Your task to perform on an android device: toggle javascript in the chrome app Image 0: 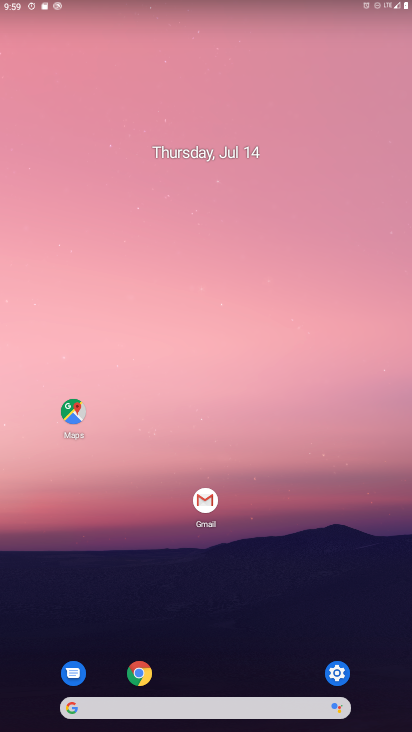
Step 0: click (153, 659)
Your task to perform on an android device: toggle javascript in the chrome app Image 1: 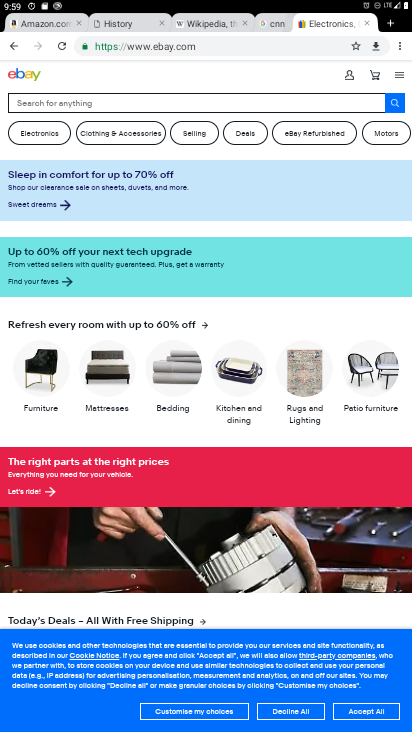
Step 1: click (399, 53)
Your task to perform on an android device: toggle javascript in the chrome app Image 2: 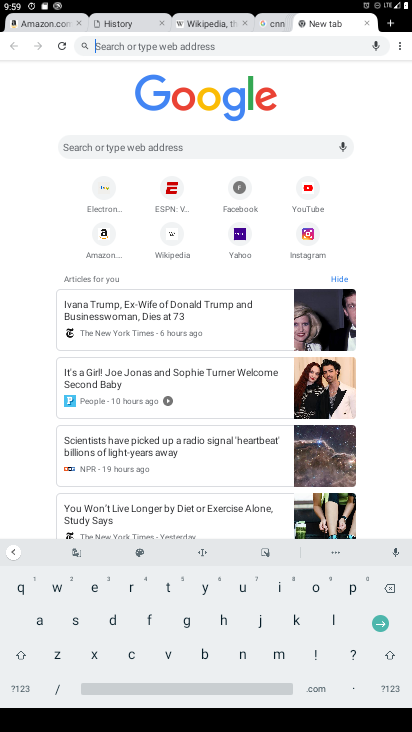
Step 2: click (394, 51)
Your task to perform on an android device: toggle javascript in the chrome app Image 3: 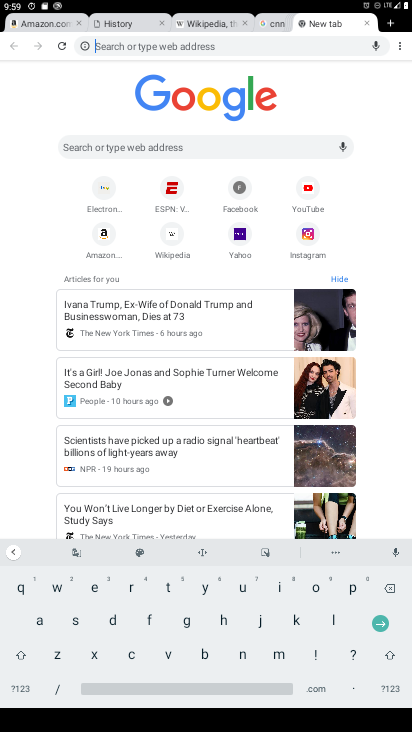
Step 3: click (395, 47)
Your task to perform on an android device: toggle javascript in the chrome app Image 4: 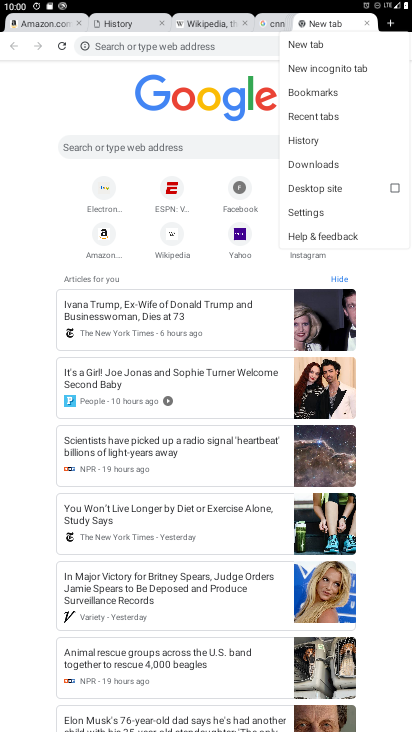
Step 4: click (305, 215)
Your task to perform on an android device: toggle javascript in the chrome app Image 5: 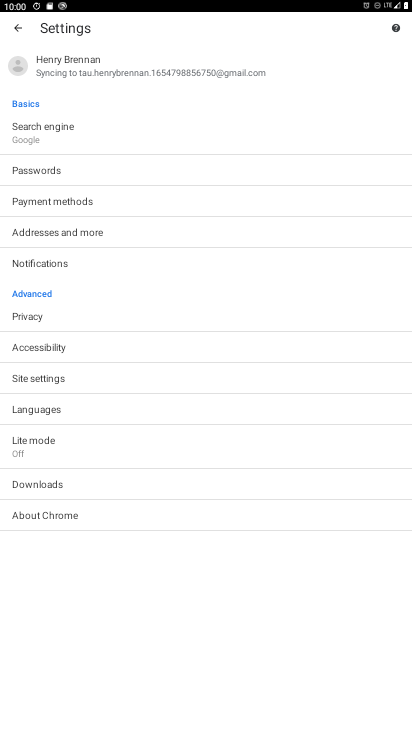
Step 5: click (44, 376)
Your task to perform on an android device: toggle javascript in the chrome app Image 6: 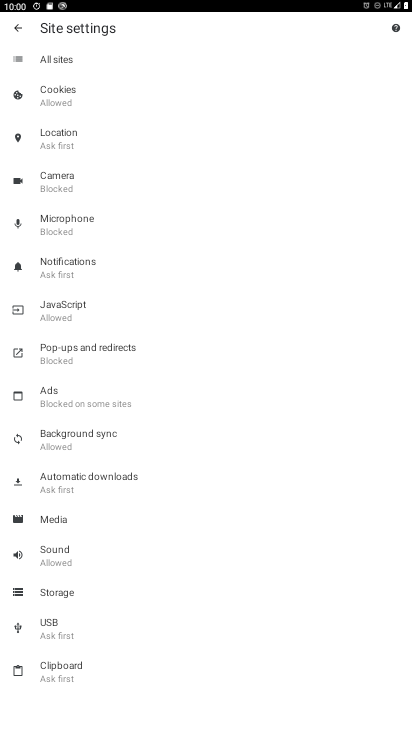
Step 6: click (77, 307)
Your task to perform on an android device: toggle javascript in the chrome app Image 7: 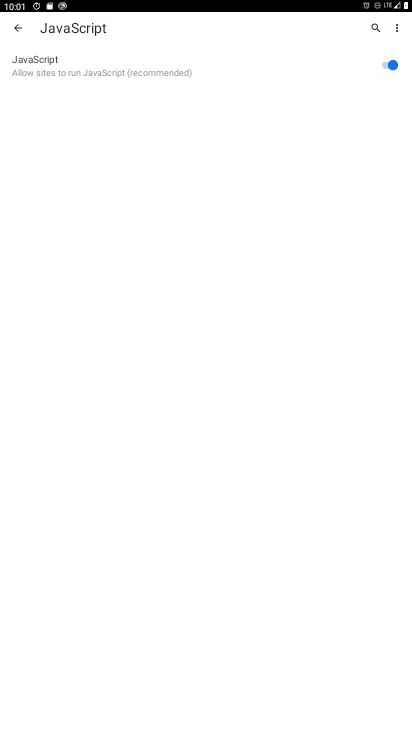
Step 7: task complete